Your task to perform on an android device: Search for Italian restaurants on Maps Image 0: 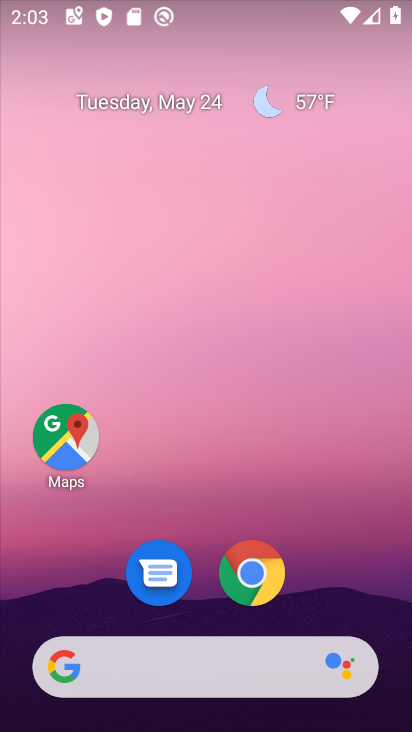
Step 0: click (88, 466)
Your task to perform on an android device: Search for Italian restaurants on Maps Image 1: 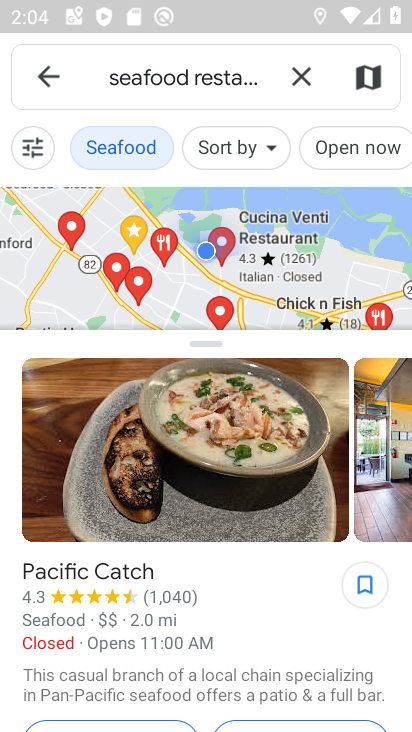
Step 1: click (301, 67)
Your task to perform on an android device: Search for Italian restaurants on Maps Image 2: 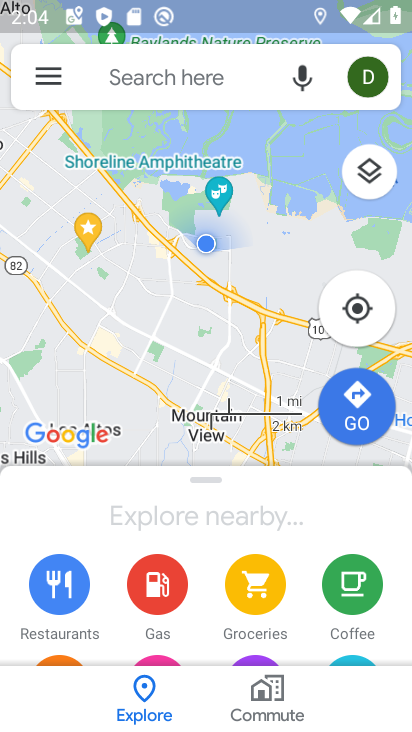
Step 2: click (216, 91)
Your task to perform on an android device: Search for Italian restaurants on Maps Image 3: 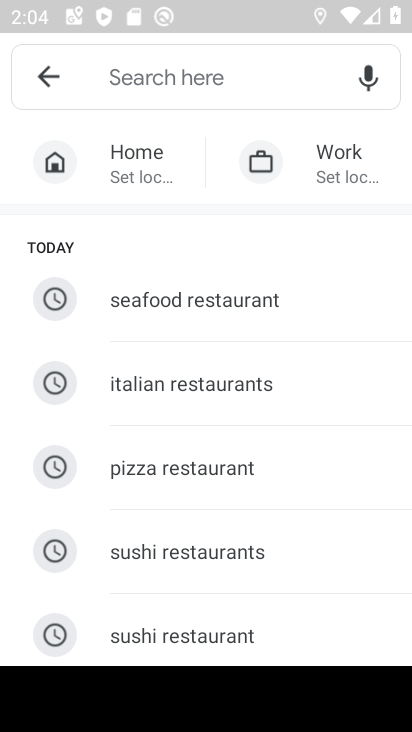
Step 3: click (255, 380)
Your task to perform on an android device: Search for Italian restaurants on Maps Image 4: 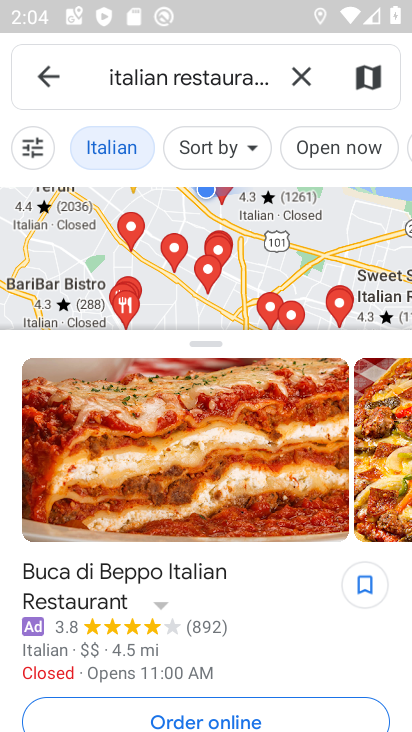
Step 4: task complete